Your task to perform on an android device: View the shopping cart on bestbuy.com. Add acer nitro to the cart on bestbuy.com, then select checkout. Image 0: 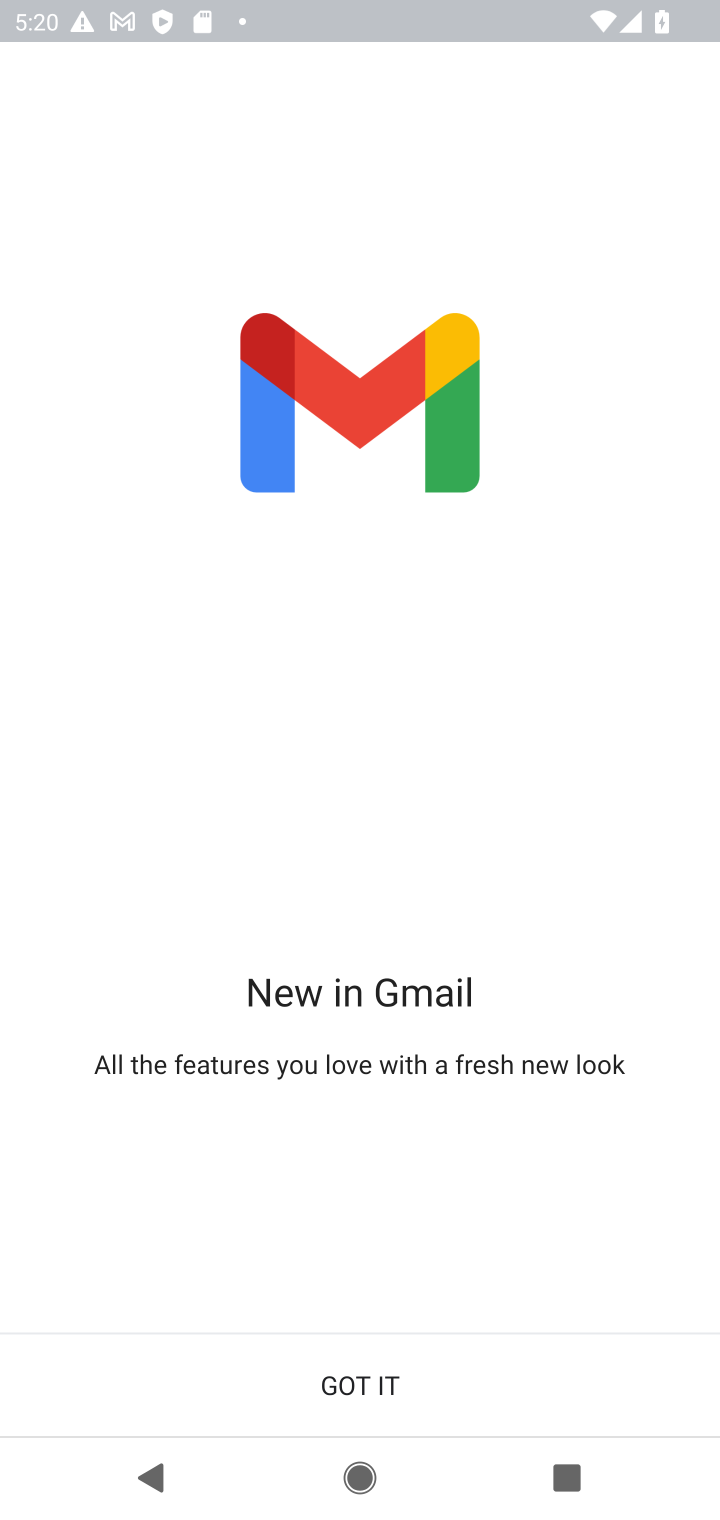
Step 0: press home button
Your task to perform on an android device: View the shopping cart on bestbuy.com. Add acer nitro to the cart on bestbuy.com, then select checkout. Image 1: 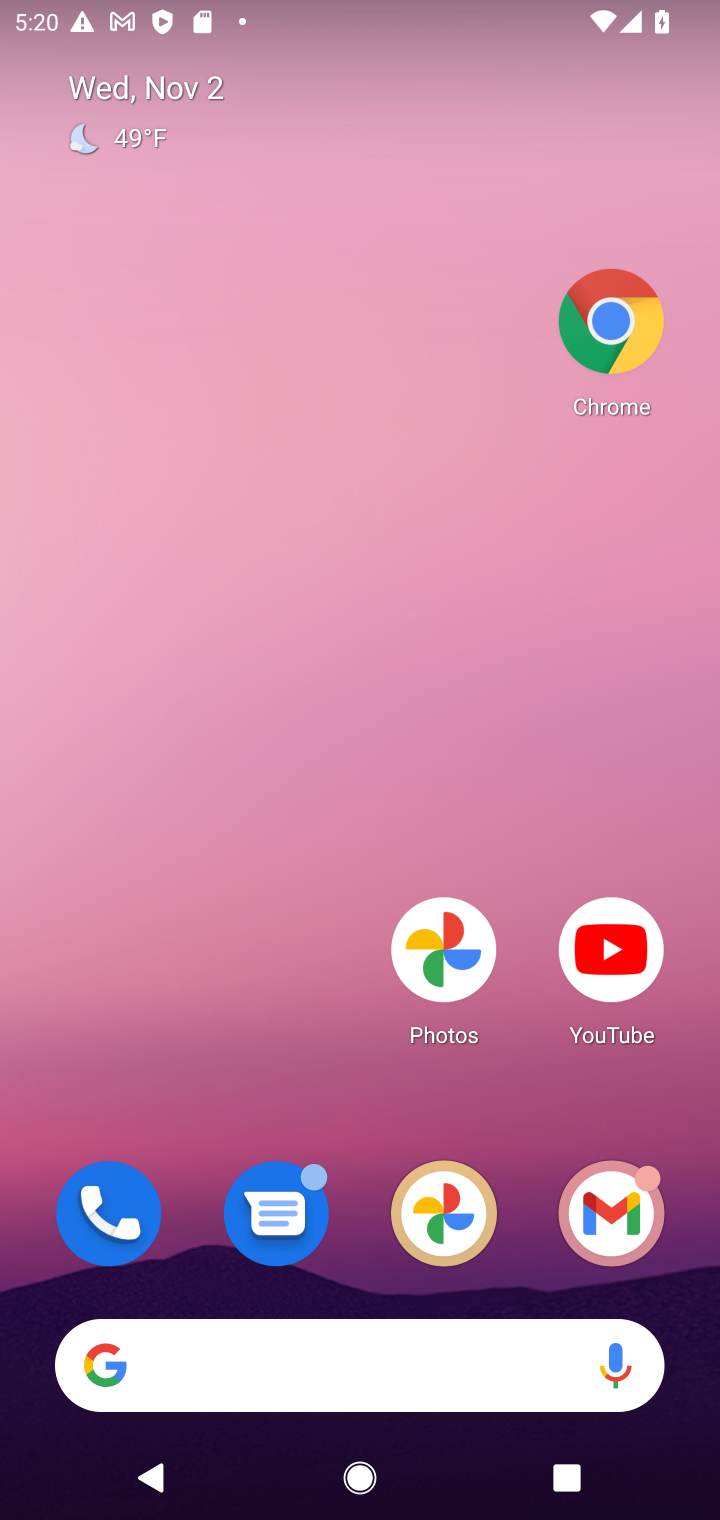
Step 1: drag from (322, 728) to (324, 4)
Your task to perform on an android device: View the shopping cart on bestbuy.com. Add acer nitro to the cart on bestbuy.com, then select checkout. Image 2: 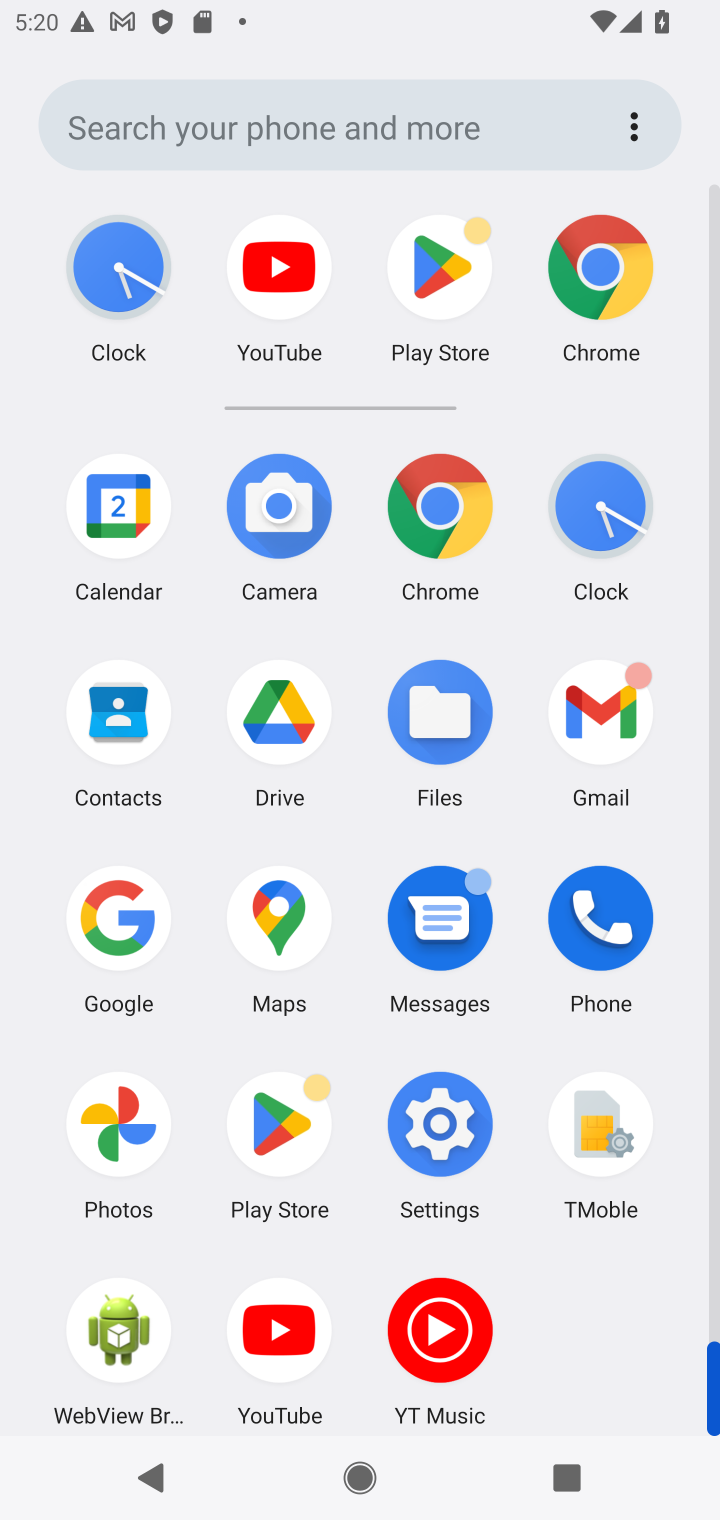
Step 2: click (114, 935)
Your task to perform on an android device: View the shopping cart on bestbuy.com. Add acer nitro to the cart on bestbuy.com, then select checkout. Image 3: 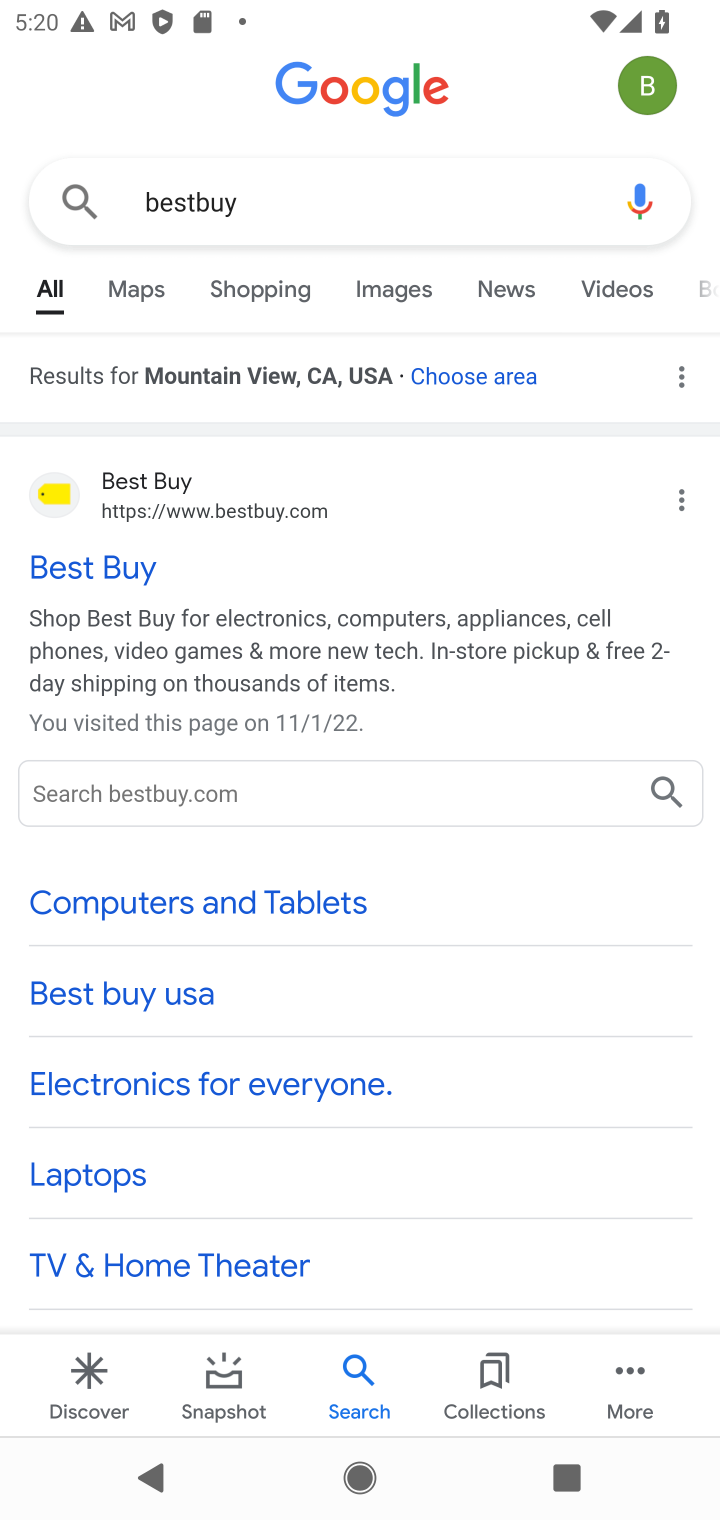
Step 3: click (442, 195)
Your task to perform on an android device: View the shopping cart on bestbuy.com. Add acer nitro to the cart on bestbuy.com, then select checkout. Image 4: 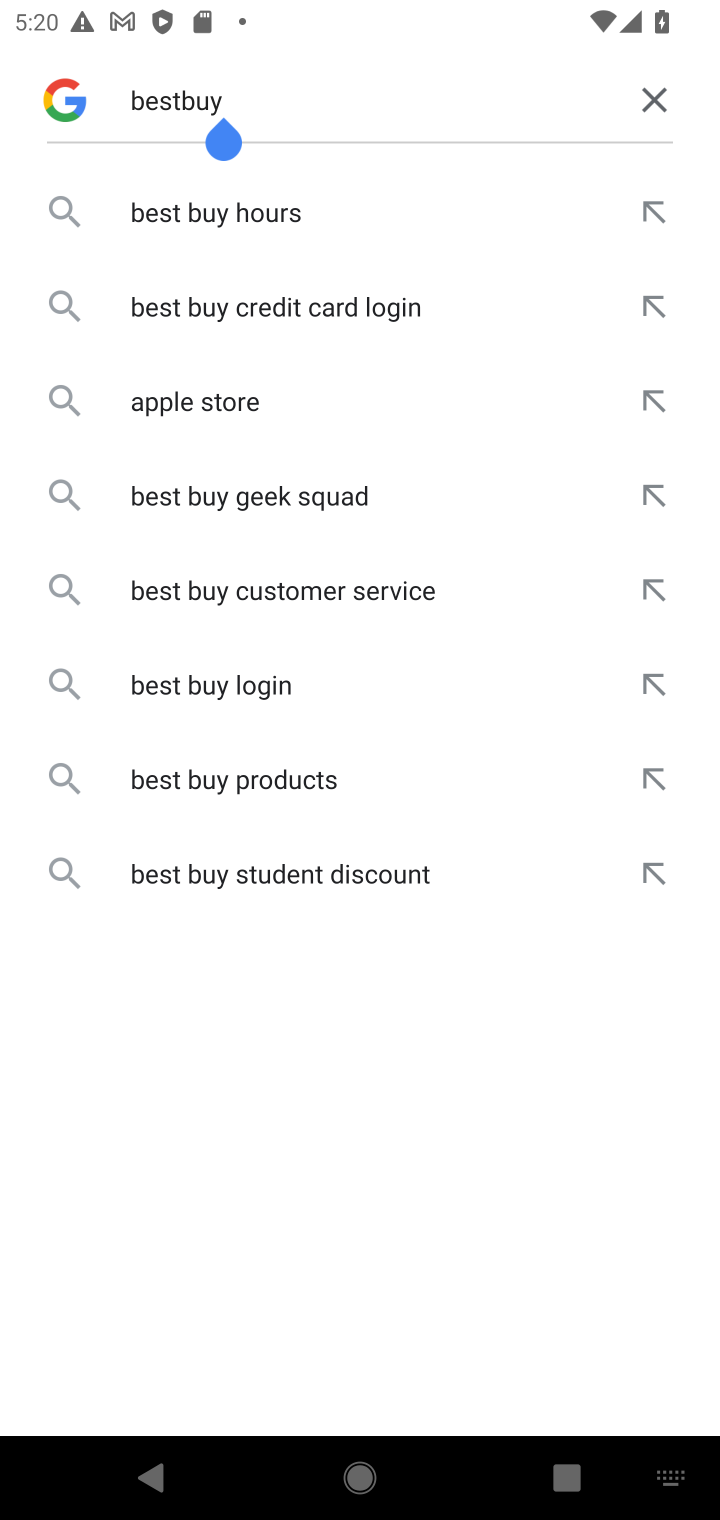
Step 4: click (655, 94)
Your task to perform on an android device: View the shopping cart on bestbuy.com. Add acer nitro to the cart on bestbuy.com, then select checkout. Image 5: 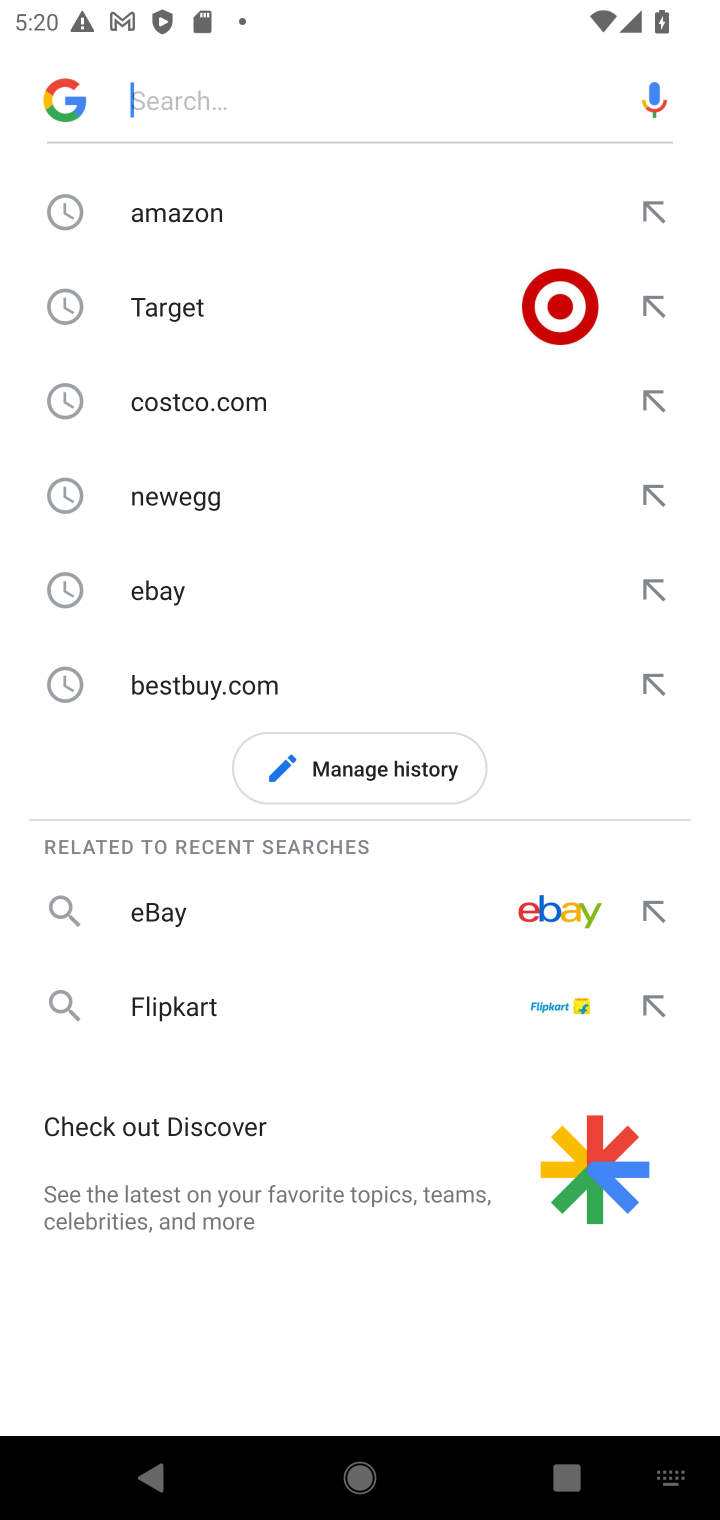
Step 5: type "bestbuy.com"
Your task to perform on an android device: View the shopping cart on bestbuy.com. Add acer nitro to the cart on bestbuy.com, then select checkout. Image 6: 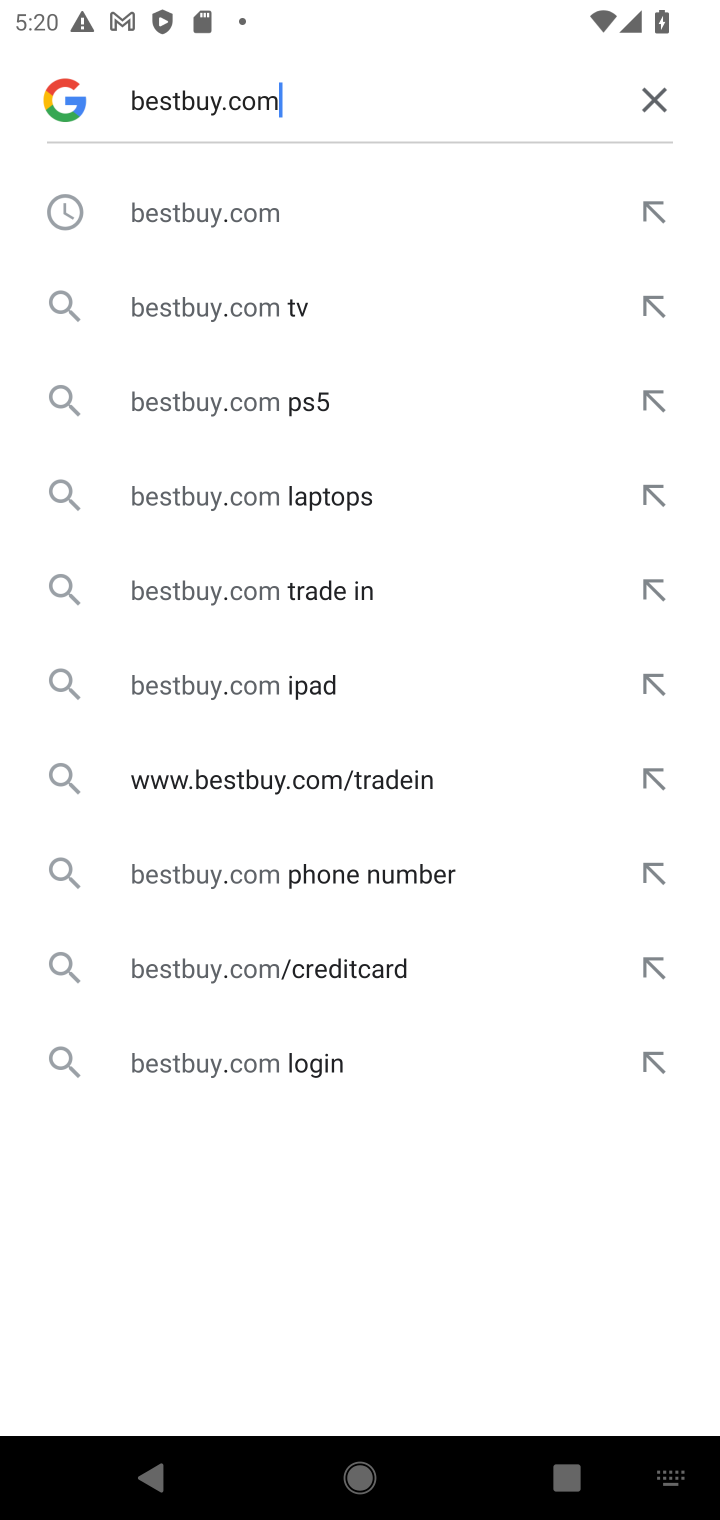
Step 6: click (179, 216)
Your task to perform on an android device: View the shopping cart on bestbuy.com. Add acer nitro to the cart on bestbuy.com, then select checkout. Image 7: 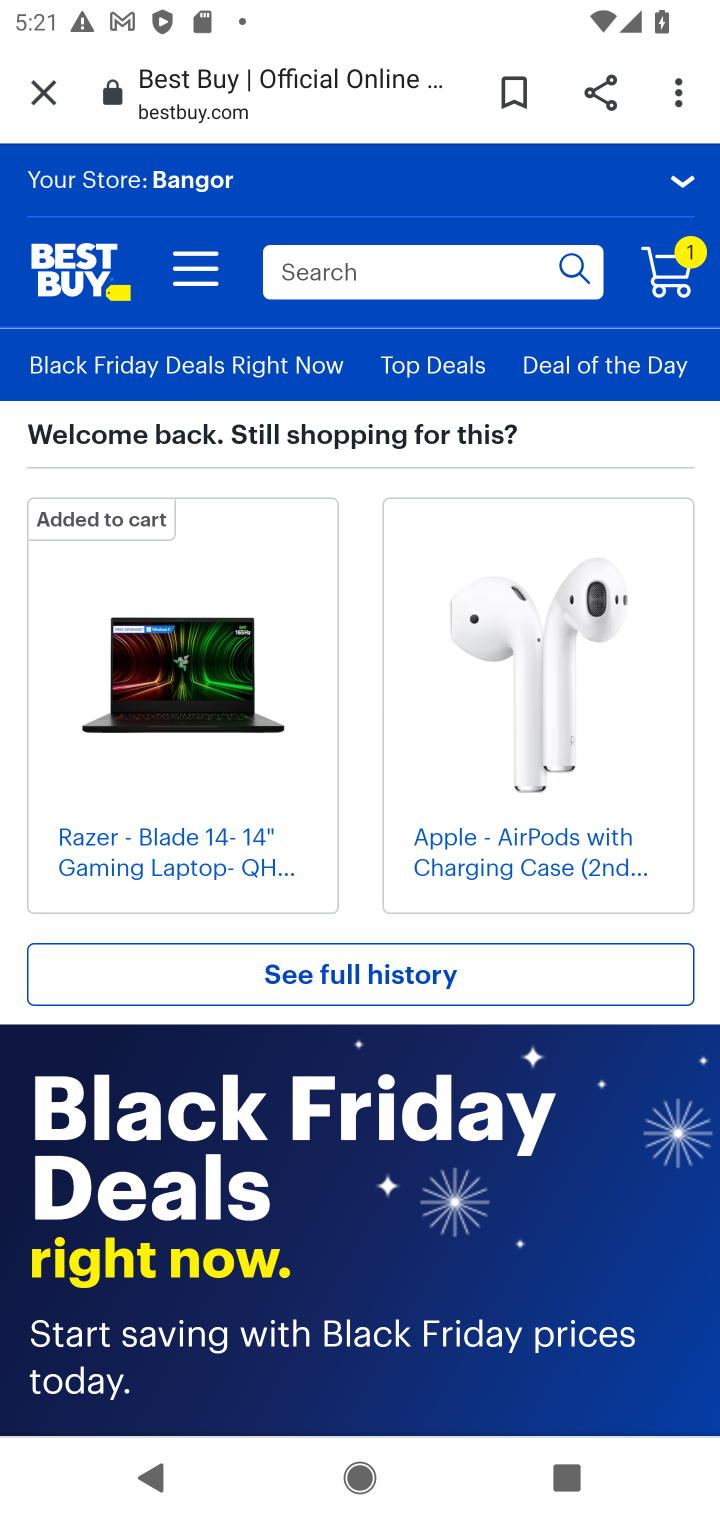
Step 7: click (389, 286)
Your task to perform on an android device: View the shopping cart on bestbuy.com. Add acer nitro to the cart on bestbuy.com, then select checkout. Image 8: 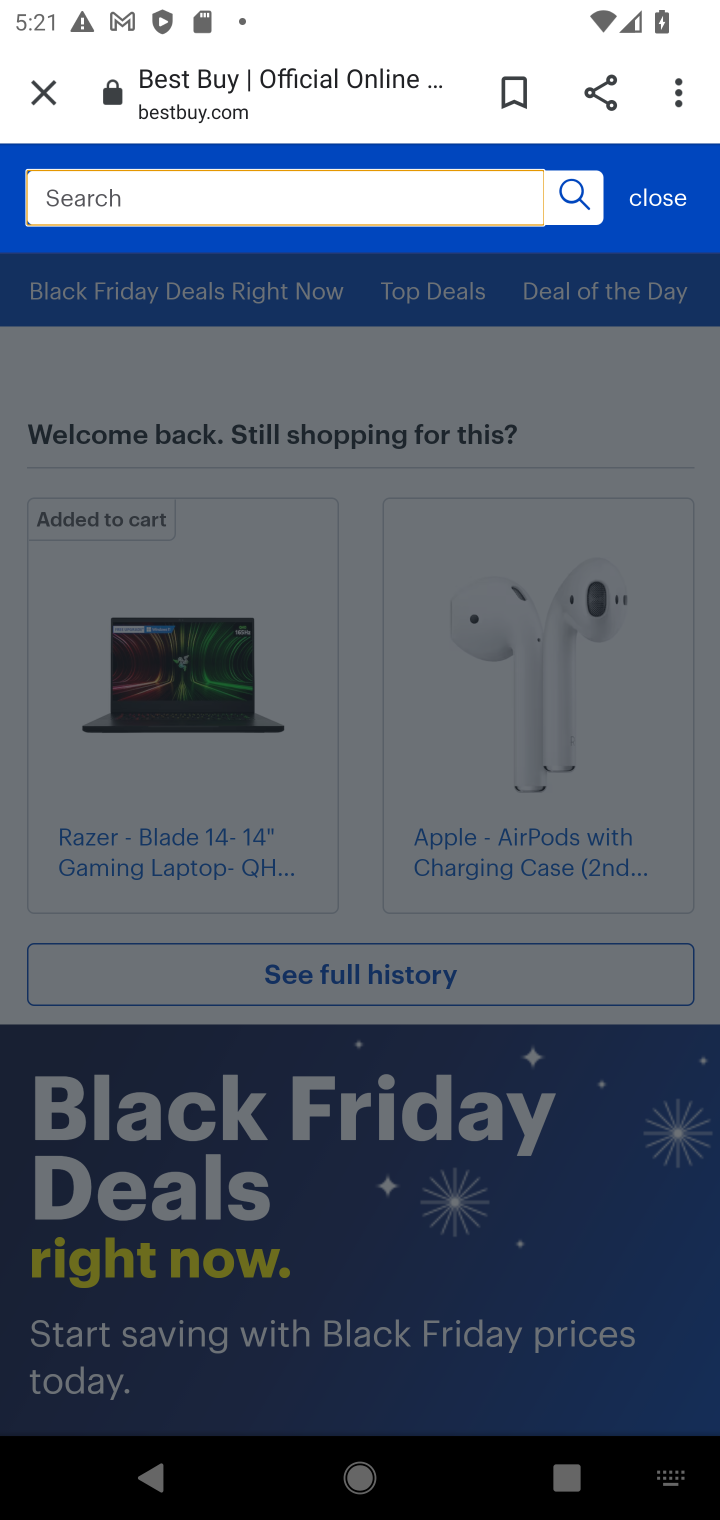
Step 8: type "acer nitro"
Your task to perform on an android device: View the shopping cart on bestbuy.com. Add acer nitro to the cart on bestbuy.com, then select checkout. Image 9: 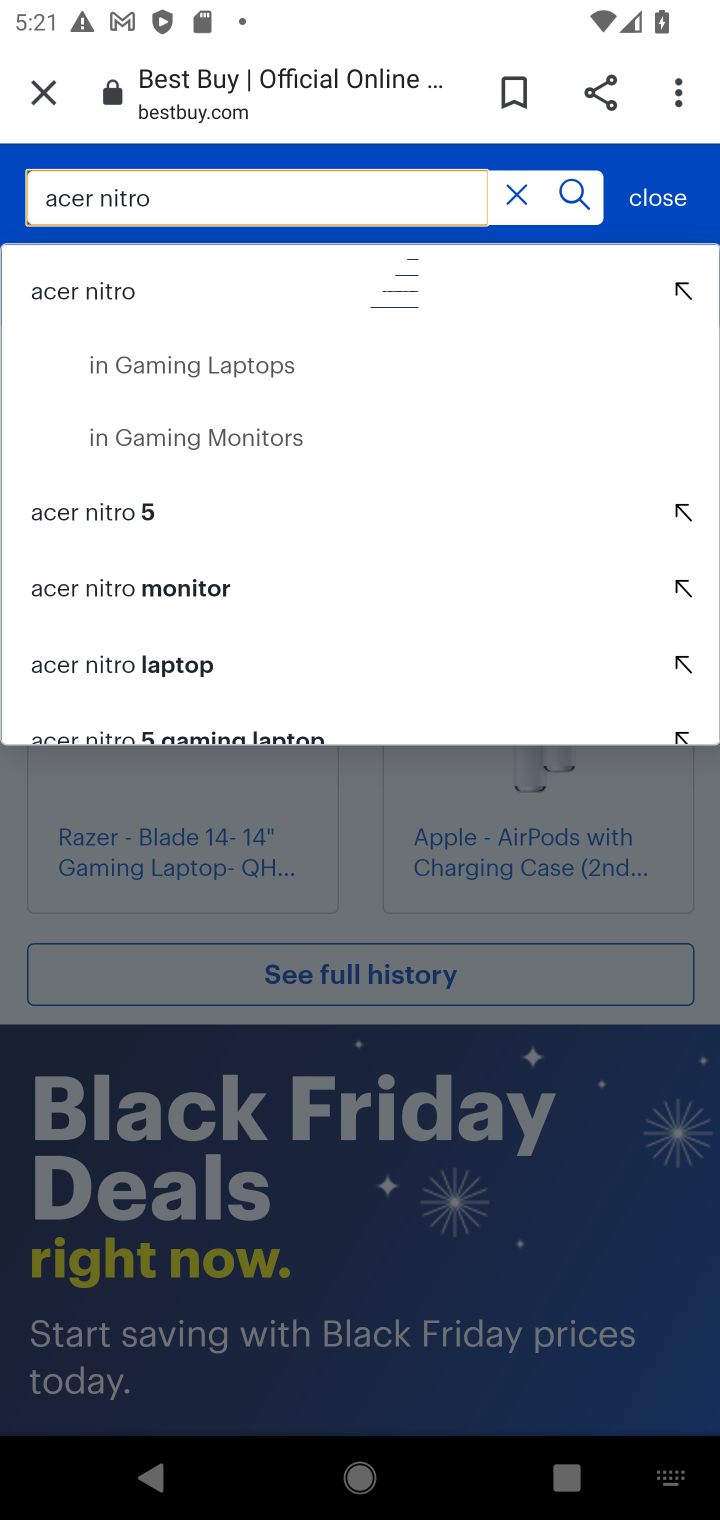
Step 9: click (230, 283)
Your task to perform on an android device: View the shopping cart on bestbuy.com. Add acer nitro to the cart on bestbuy.com, then select checkout. Image 10: 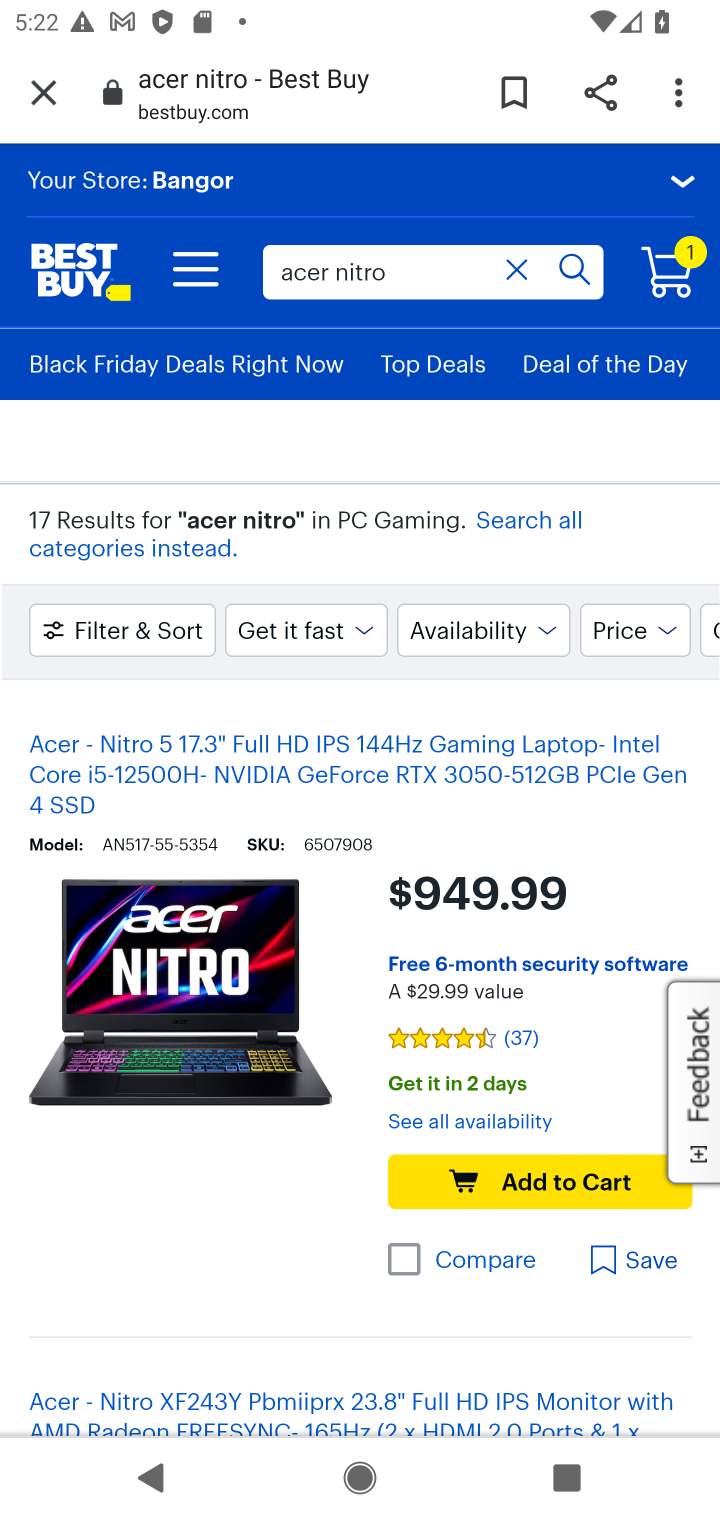
Step 10: click (562, 1183)
Your task to perform on an android device: View the shopping cart on bestbuy.com. Add acer nitro to the cart on bestbuy.com, then select checkout. Image 11: 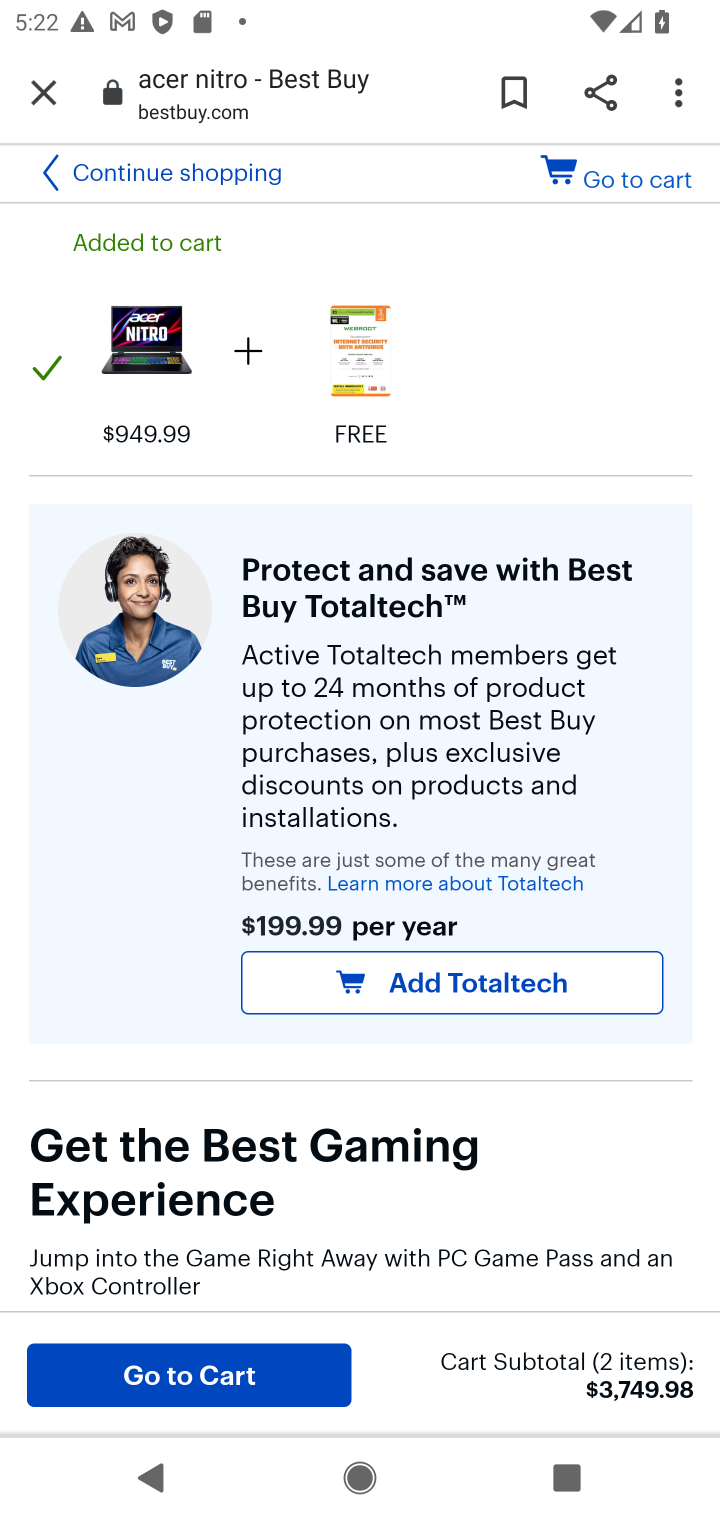
Step 11: click (625, 174)
Your task to perform on an android device: View the shopping cart on bestbuy.com. Add acer nitro to the cart on bestbuy.com, then select checkout. Image 12: 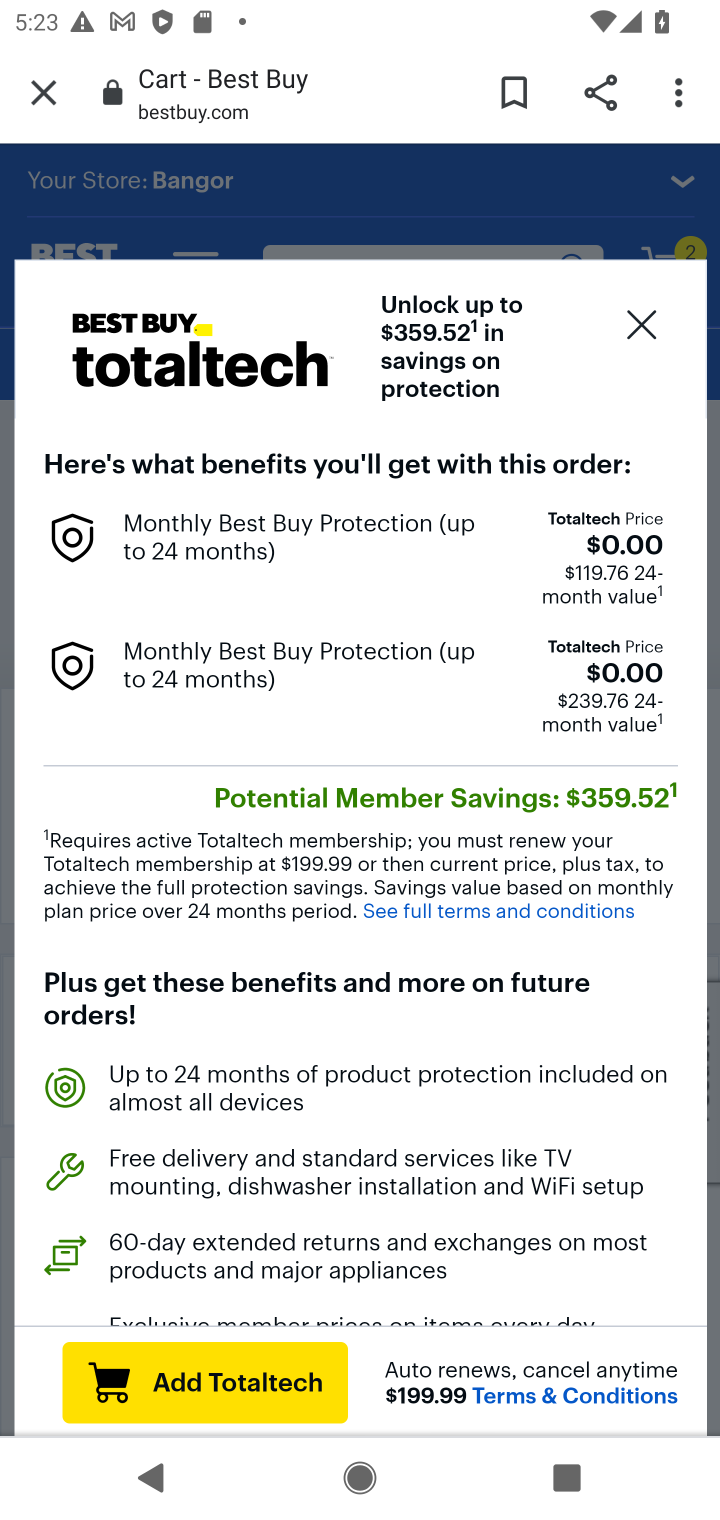
Step 12: click (640, 325)
Your task to perform on an android device: View the shopping cart on bestbuy.com. Add acer nitro to the cart on bestbuy.com, then select checkout. Image 13: 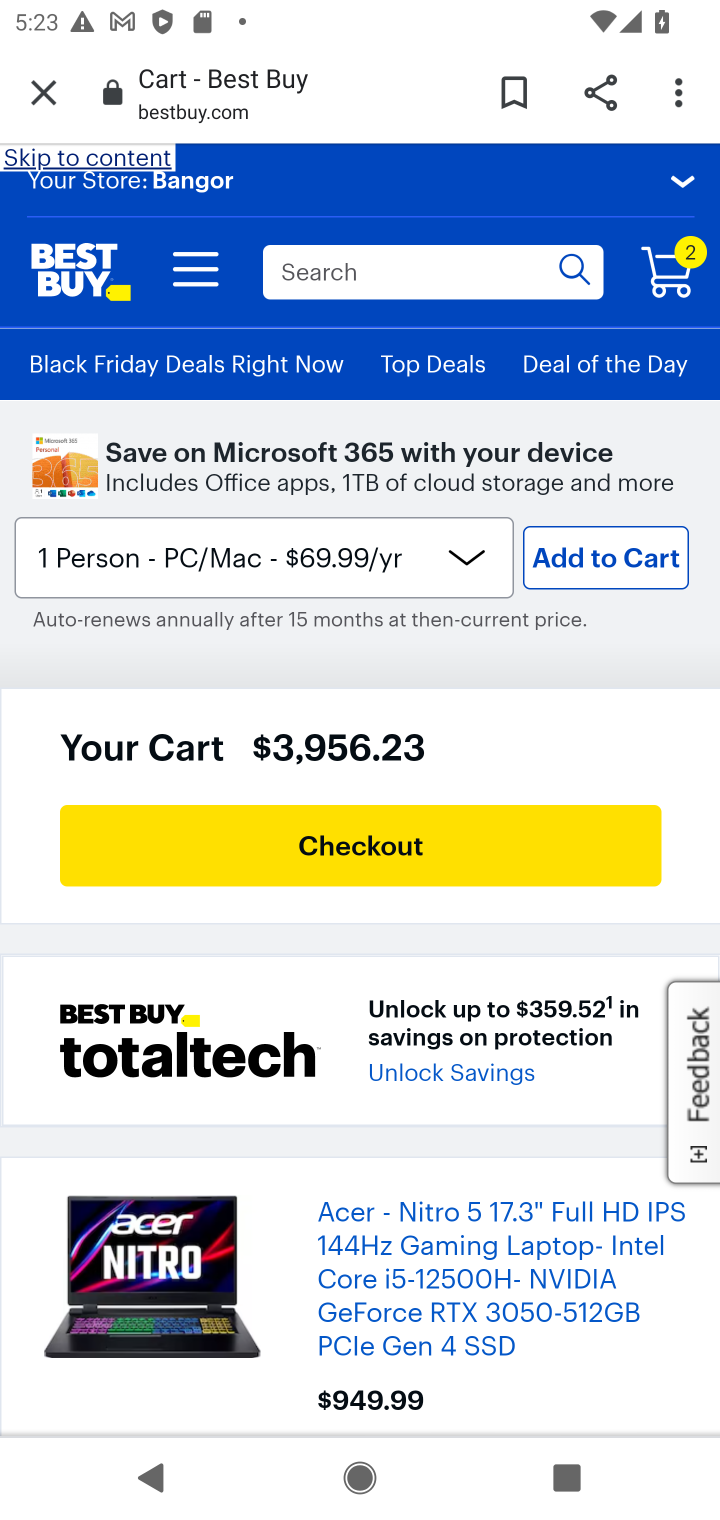
Step 13: click (482, 852)
Your task to perform on an android device: View the shopping cart on bestbuy.com. Add acer nitro to the cart on bestbuy.com, then select checkout. Image 14: 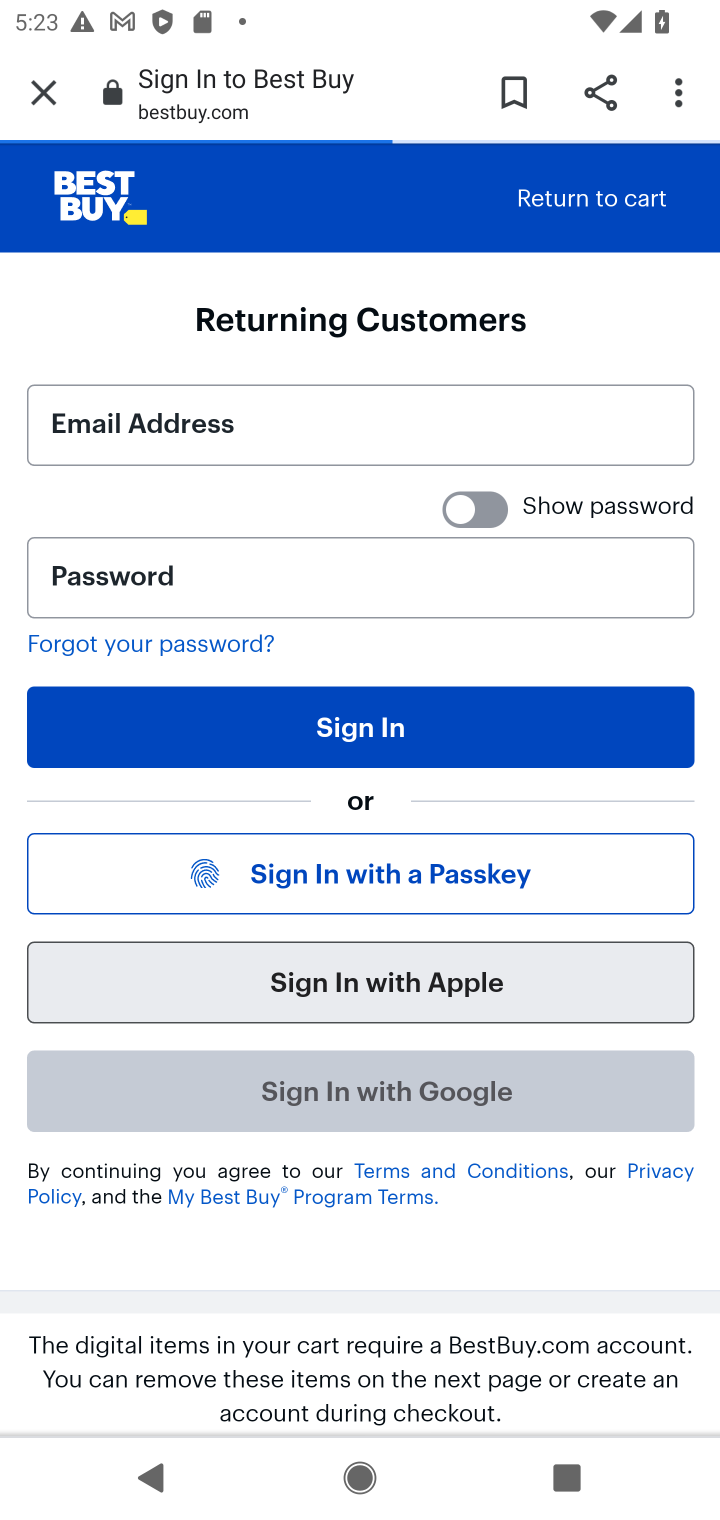
Step 14: task complete